Your task to perform on an android device: empty trash in the gmail app Image 0: 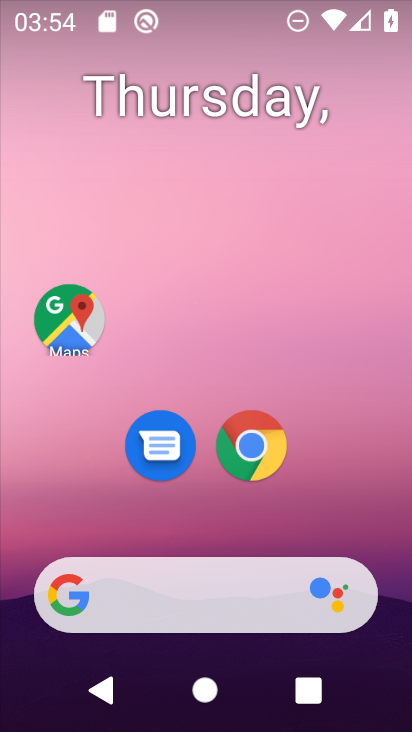
Step 0: drag from (353, 531) to (345, 14)
Your task to perform on an android device: empty trash in the gmail app Image 1: 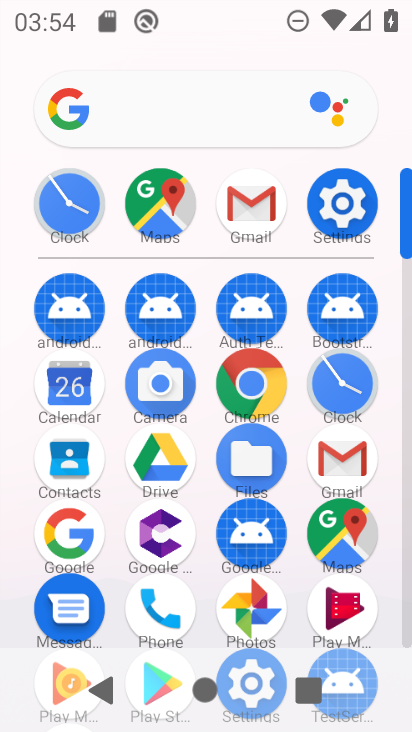
Step 1: click (249, 199)
Your task to perform on an android device: empty trash in the gmail app Image 2: 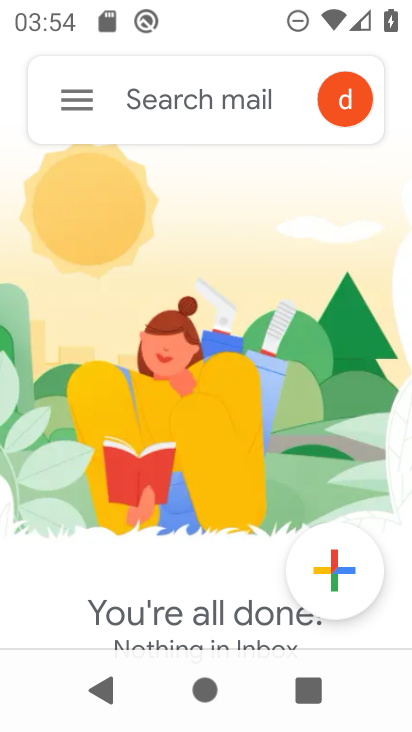
Step 2: click (80, 107)
Your task to perform on an android device: empty trash in the gmail app Image 3: 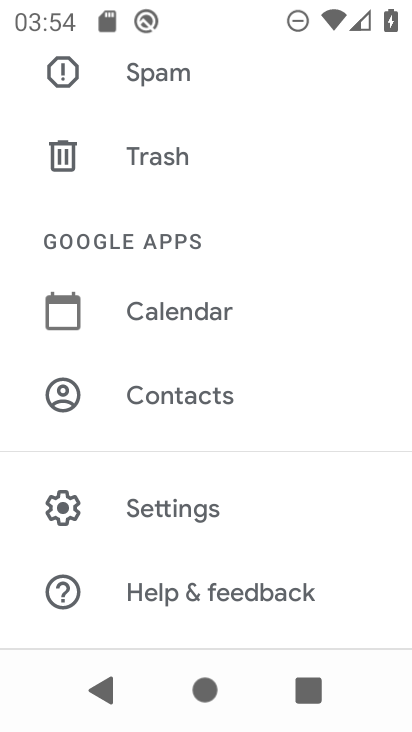
Step 3: click (141, 158)
Your task to perform on an android device: empty trash in the gmail app Image 4: 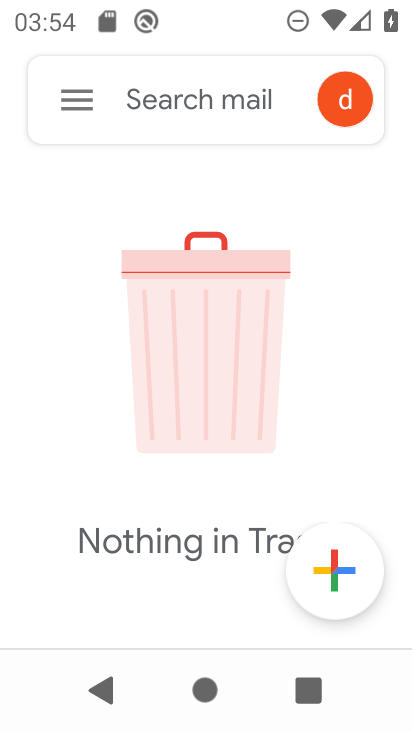
Step 4: task complete